Your task to perform on an android device: Go to notification settings Image 0: 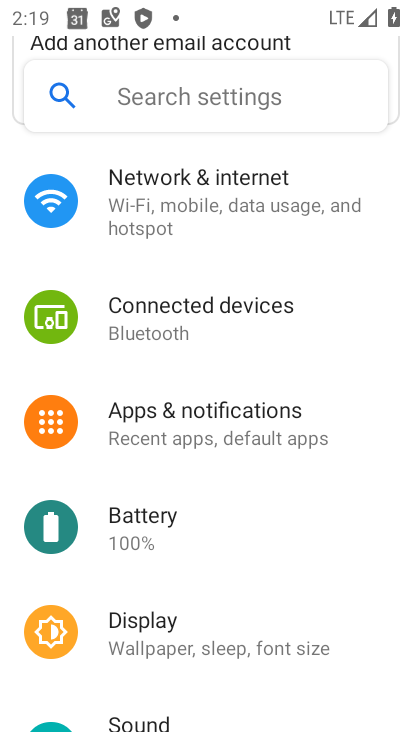
Step 0: click (189, 417)
Your task to perform on an android device: Go to notification settings Image 1: 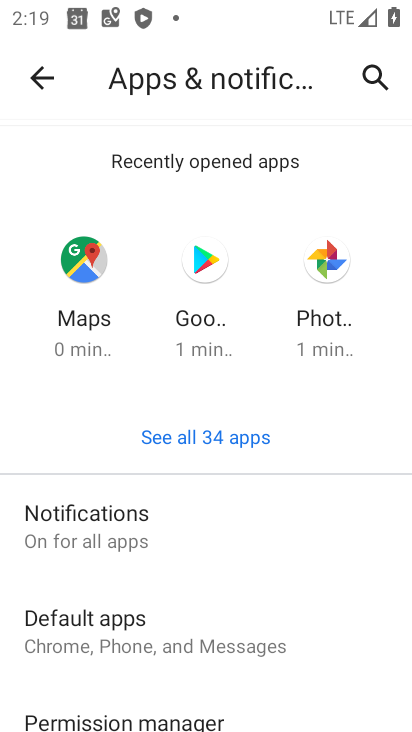
Step 1: task complete